Your task to perform on an android device: What's on my calendar tomorrow? Image 0: 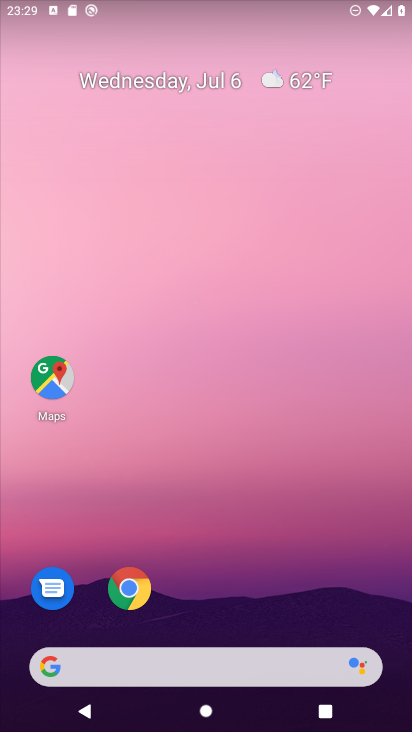
Step 0: drag from (387, 622) to (340, 73)
Your task to perform on an android device: What's on my calendar tomorrow? Image 1: 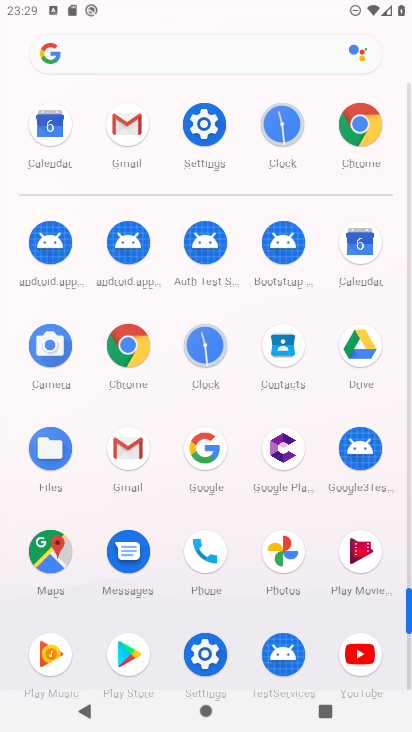
Step 1: click (359, 243)
Your task to perform on an android device: What's on my calendar tomorrow? Image 2: 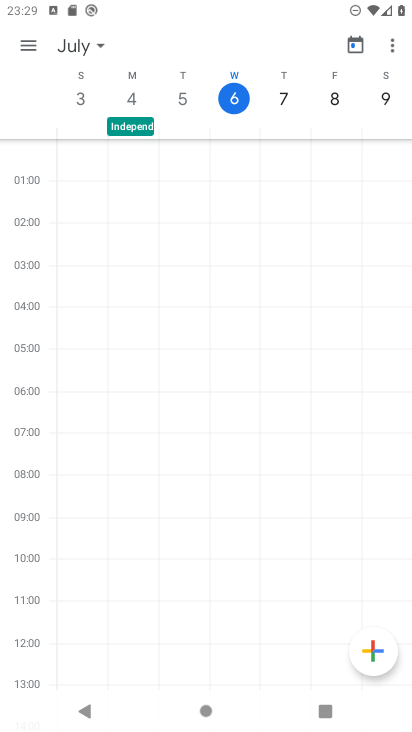
Step 2: click (31, 49)
Your task to perform on an android device: What's on my calendar tomorrow? Image 3: 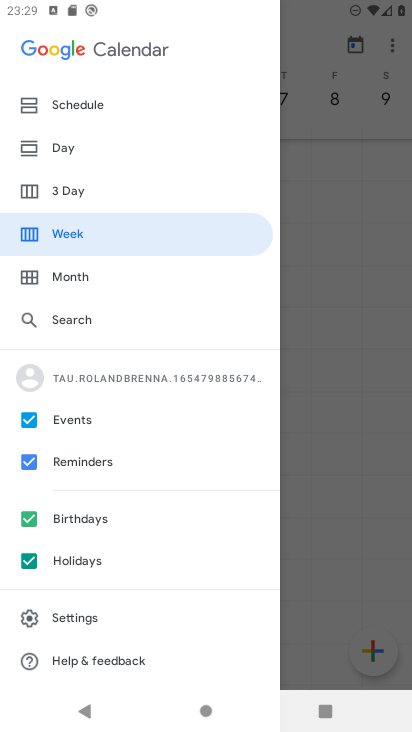
Step 3: click (59, 153)
Your task to perform on an android device: What's on my calendar tomorrow? Image 4: 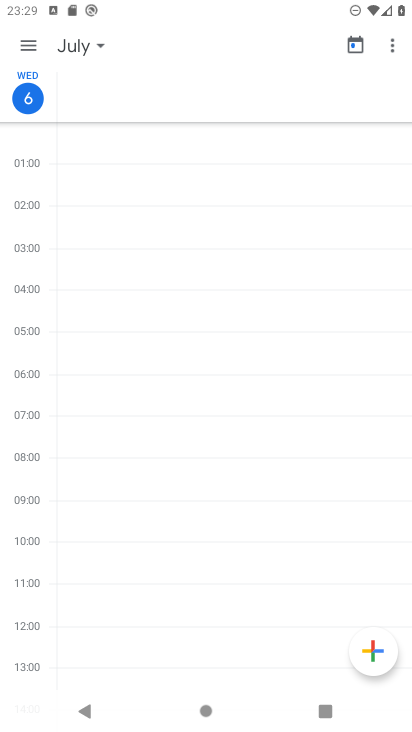
Step 4: click (95, 48)
Your task to perform on an android device: What's on my calendar tomorrow? Image 5: 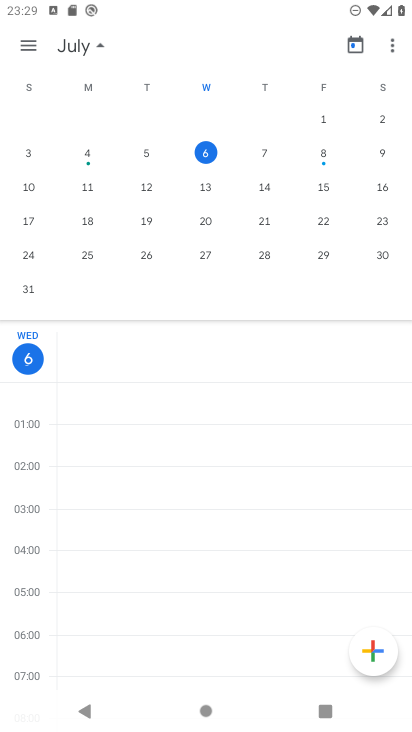
Step 5: click (259, 149)
Your task to perform on an android device: What's on my calendar tomorrow? Image 6: 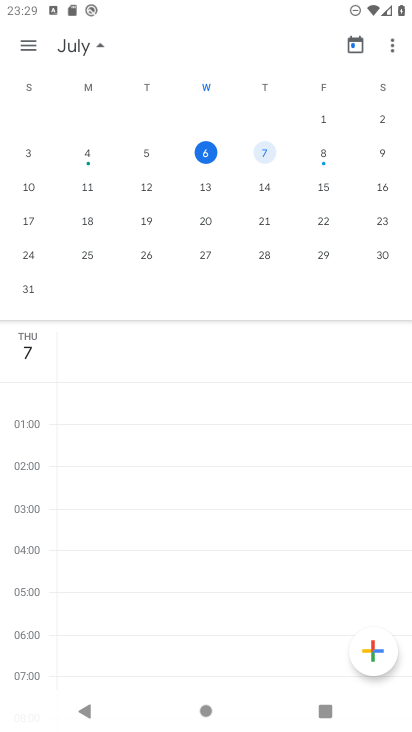
Step 6: task complete